Your task to perform on an android device: set the timer Image 0: 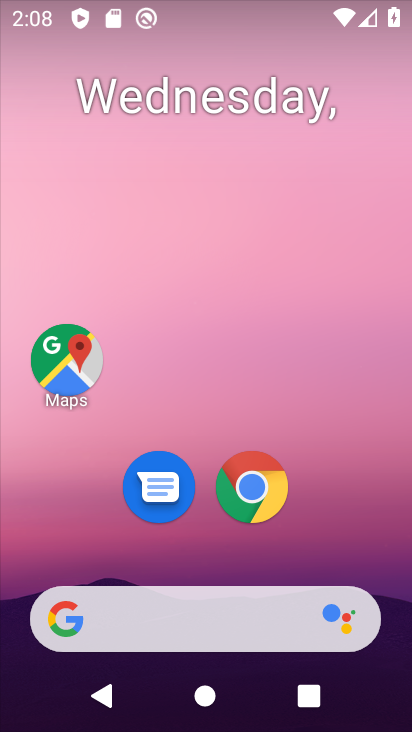
Step 0: drag from (175, 606) to (170, 199)
Your task to perform on an android device: set the timer Image 1: 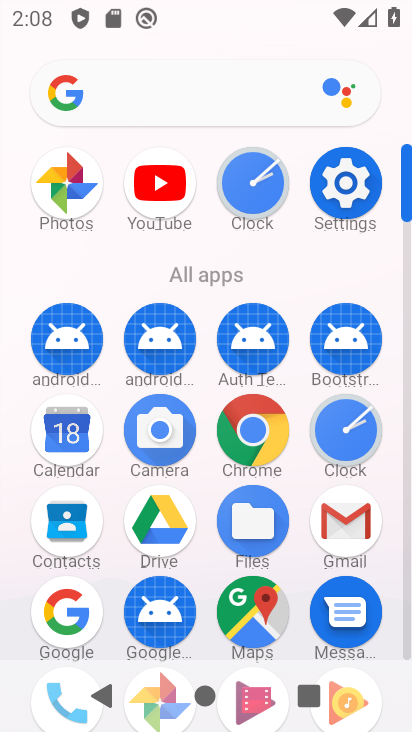
Step 1: click (259, 191)
Your task to perform on an android device: set the timer Image 2: 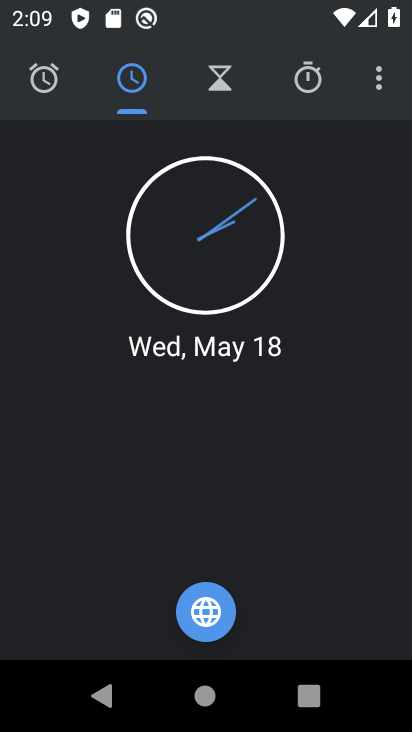
Step 2: click (219, 91)
Your task to perform on an android device: set the timer Image 3: 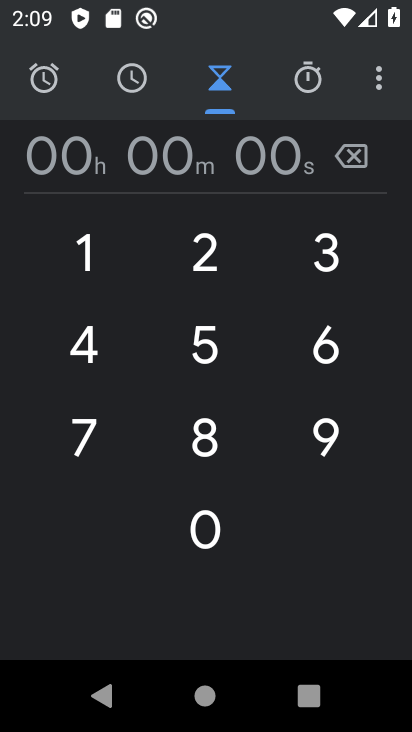
Step 3: click (213, 434)
Your task to perform on an android device: set the timer Image 4: 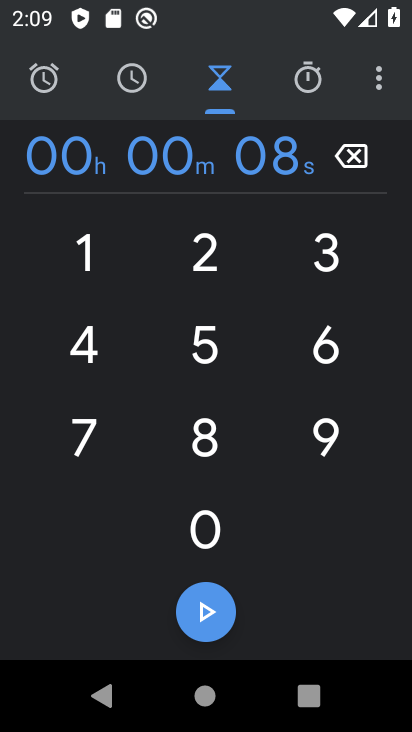
Step 4: click (206, 522)
Your task to perform on an android device: set the timer Image 5: 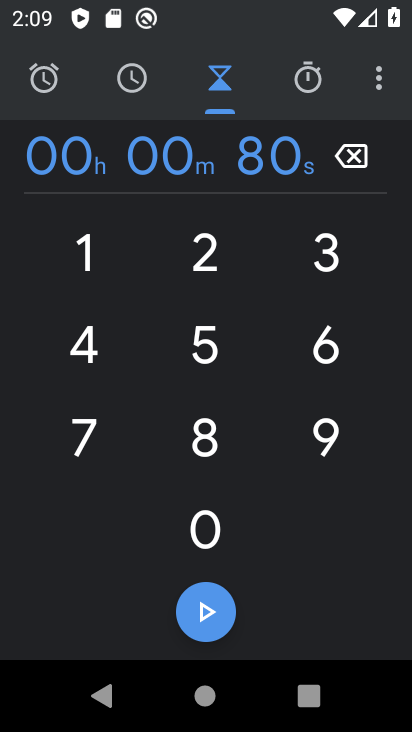
Step 5: click (196, 417)
Your task to perform on an android device: set the timer Image 6: 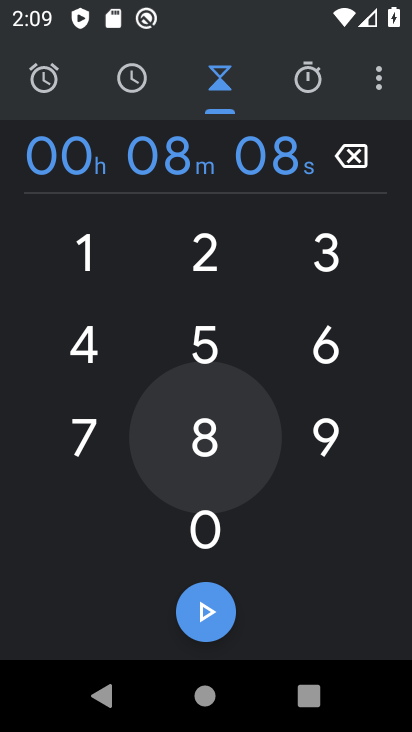
Step 6: click (201, 428)
Your task to perform on an android device: set the timer Image 7: 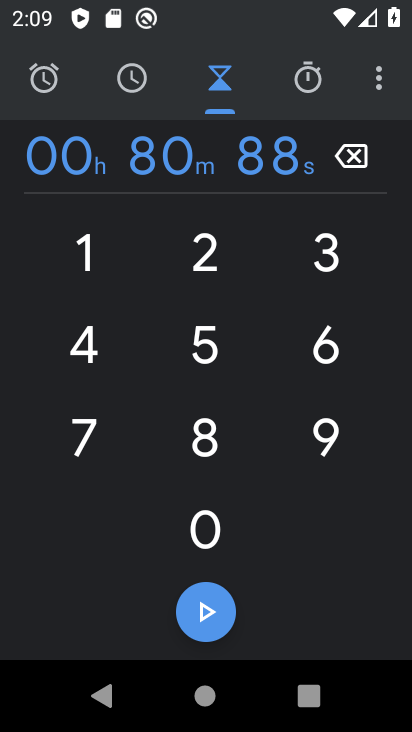
Step 7: click (202, 429)
Your task to perform on an android device: set the timer Image 8: 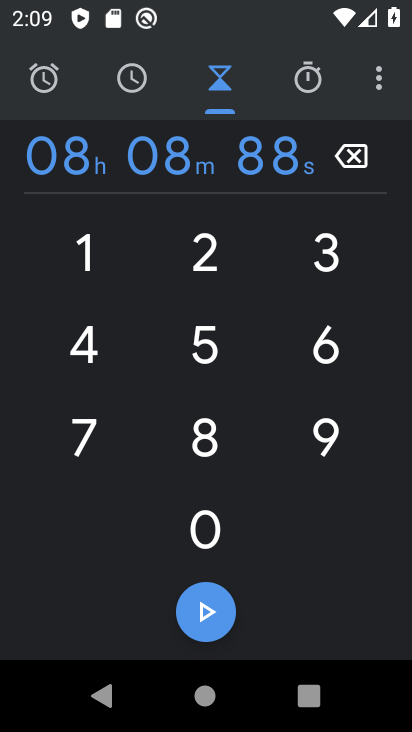
Step 8: click (203, 623)
Your task to perform on an android device: set the timer Image 9: 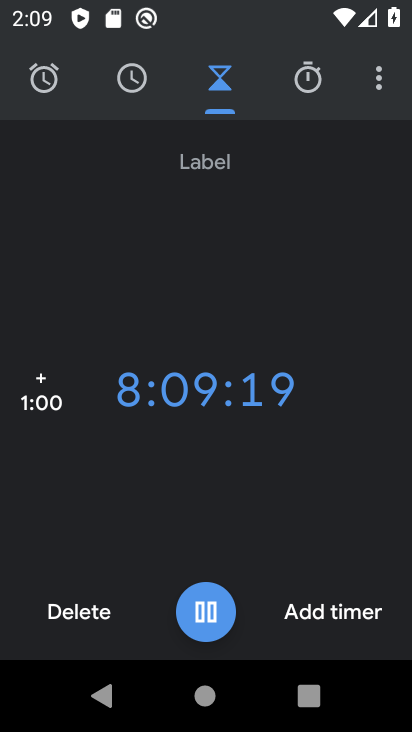
Step 9: task complete